Your task to perform on an android device: turn on improve location accuracy Image 0: 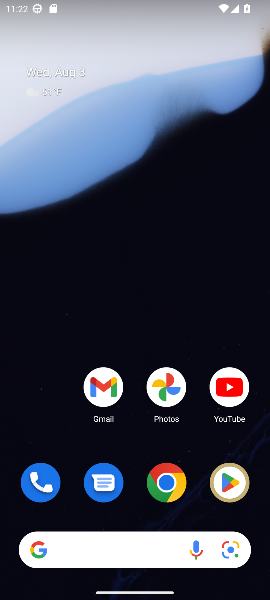
Step 0: drag from (80, 523) to (50, 298)
Your task to perform on an android device: turn on improve location accuracy Image 1: 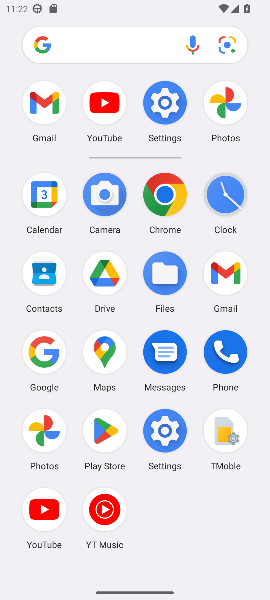
Step 1: click (178, 105)
Your task to perform on an android device: turn on improve location accuracy Image 2: 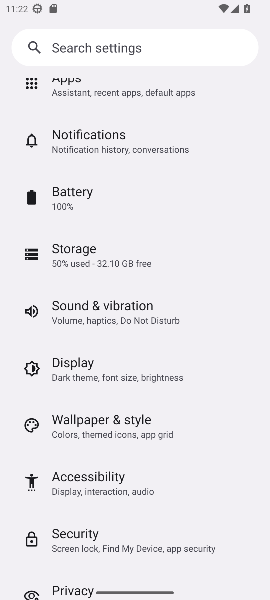
Step 2: drag from (124, 496) to (129, 337)
Your task to perform on an android device: turn on improve location accuracy Image 3: 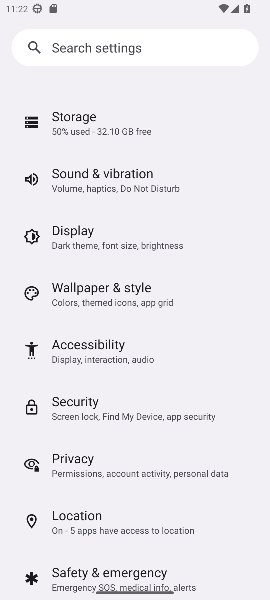
Step 3: click (135, 523)
Your task to perform on an android device: turn on improve location accuracy Image 4: 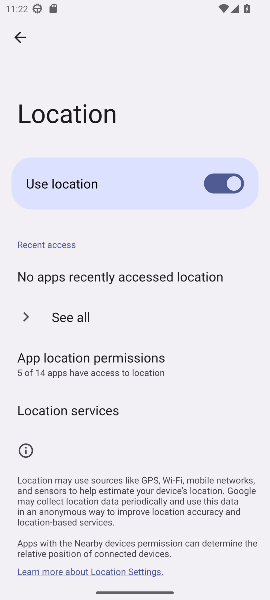
Step 4: task complete